Your task to perform on an android device: When is my next meeting? Image 0: 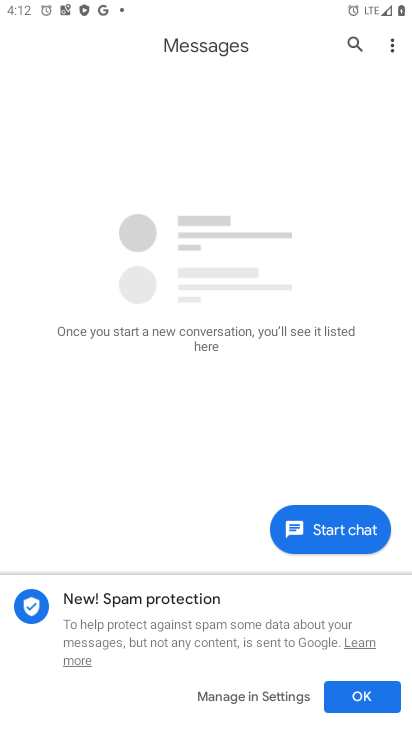
Step 0: press home button
Your task to perform on an android device: When is my next meeting? Image 1: 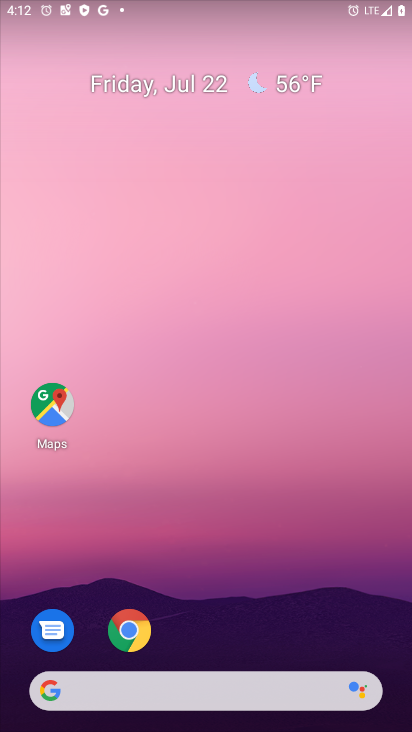
Step 1: drag from (234, 690) to (168, 262)
Your task to perform on an android device: When is my next meeting? Image 2: 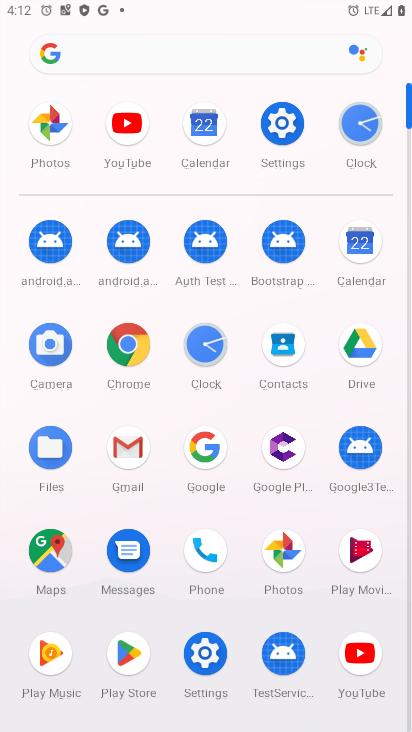
Step 2: click (349, 259)
Your task to perform on an android device: When is my next meeting? Image 3: 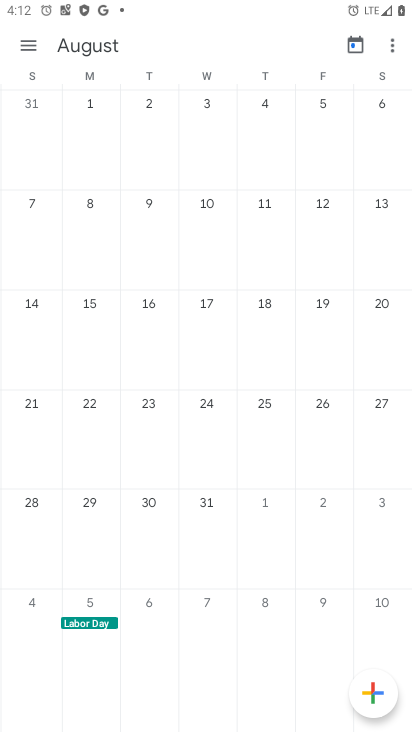
Step 3: drag from (102, 345) to (404, 406)
Your task to perform on an android device: When is my next meeting? Image 4: 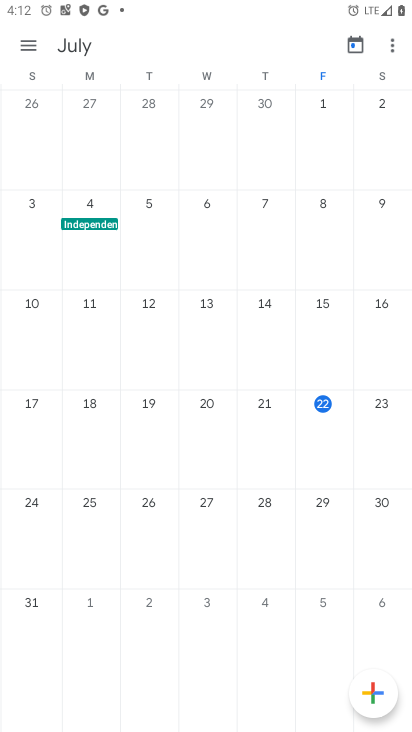
Step 4: click (25, 46)
Your task to perform on an android device: When is my next meeting? Image 5: 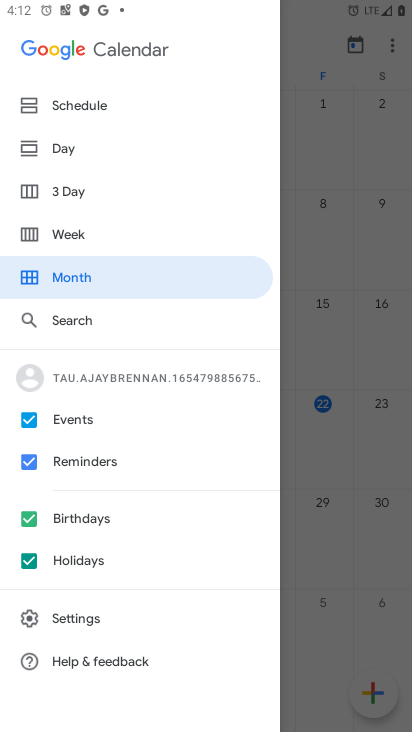
Step 5: click (85, 104)
Your task to perform on an android device: When is my next meeting? Image 6: 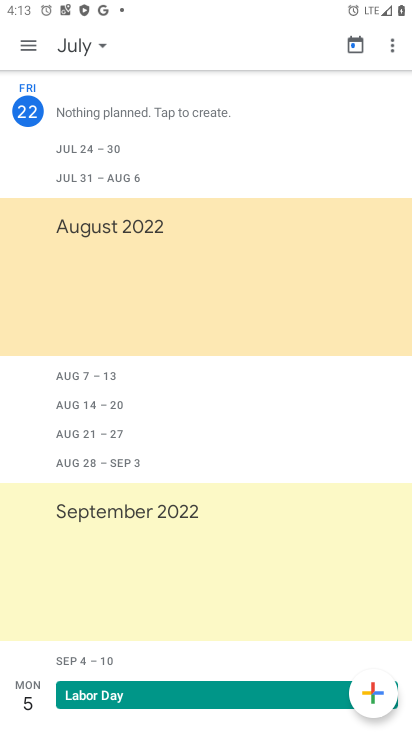
Step 6: task complete